Your task to perform on an android device: Open ESPN.com Image 0: 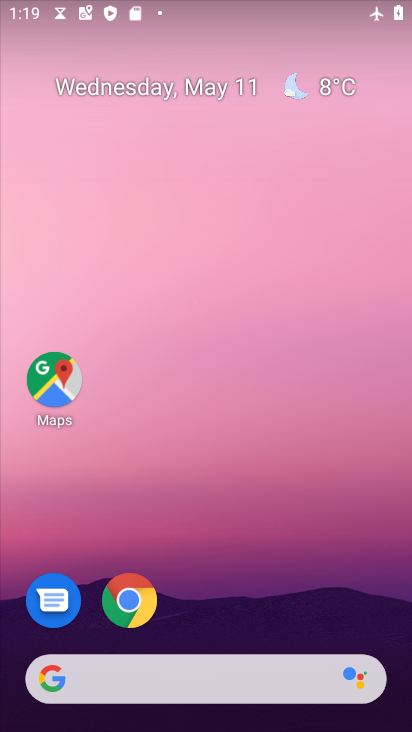
Step 0: click (129, 601)
Your task to perform on an android device: Open ESPN.com Image 1: 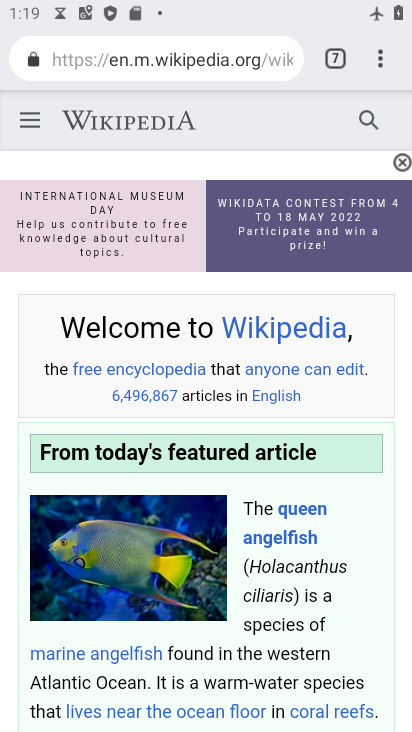
Step 1: click (336, 55)
Your task to perform on an android device: Open ESPN.com Image 2: 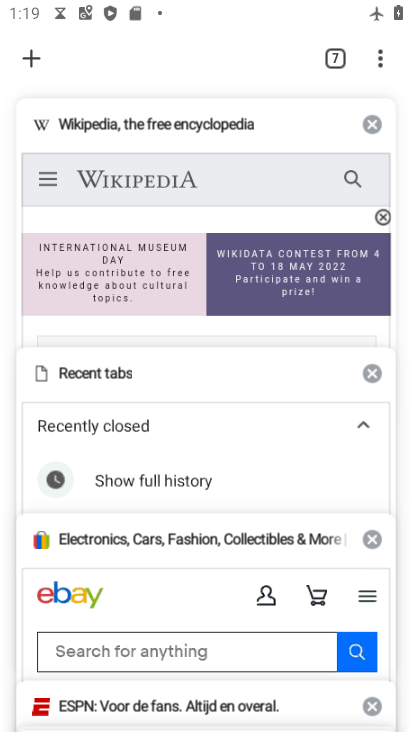
Step 2: click (171, 716)
Your task to perform on an android device: Open ESPN.com Image 3: 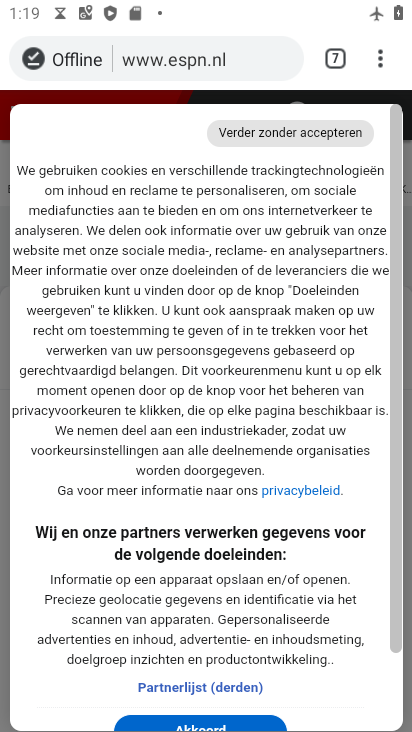
Step 3: task complete